Your task to perform on an android device: Go to ESPN.com Image 0: 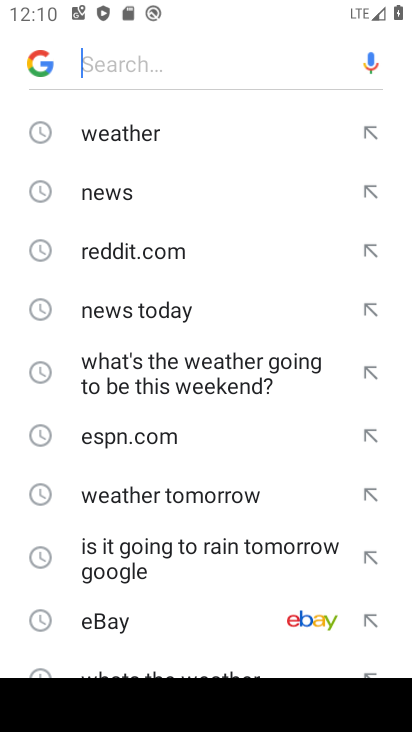
Step 0: type "espn.com"
Your task to perform on an android device: Go to ESPN.com Image 1: 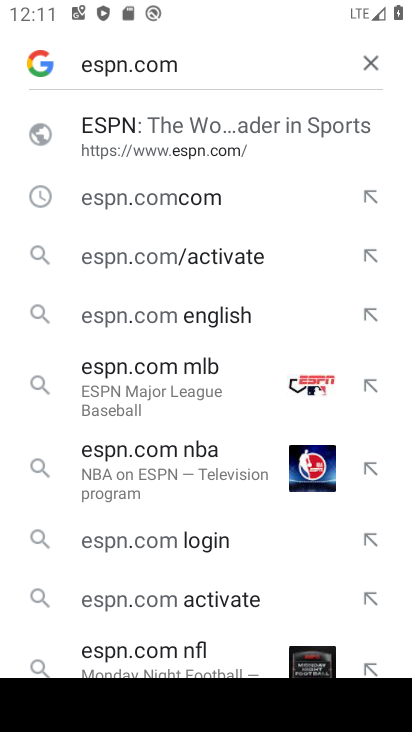
Step 1: click (191, 129)
Your task to perform on an android device: Go to ESPN.com Image 2: 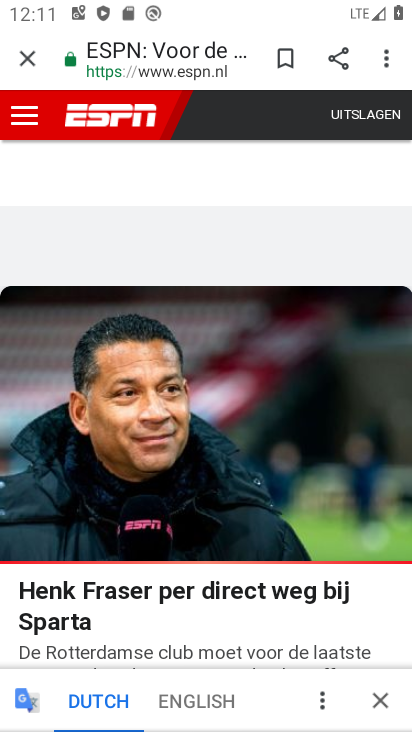
Step 2: task complete